Your task to perform on an android device: find snoozed emails in the gmail app Image 0: 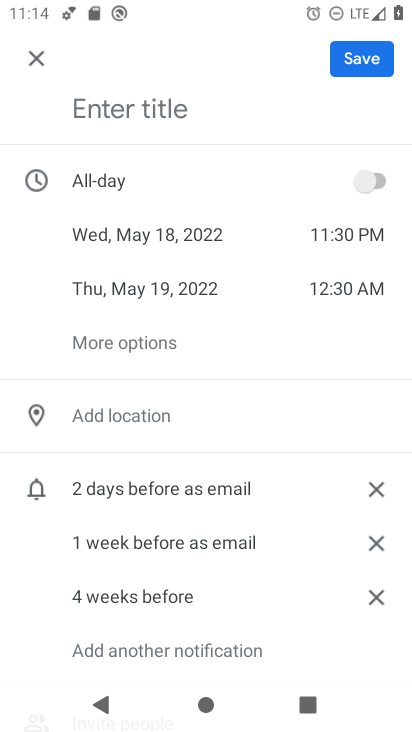
Step 0: press home button
Your task to perform on an android device: find snoozed emails in the gmail app Image 1: 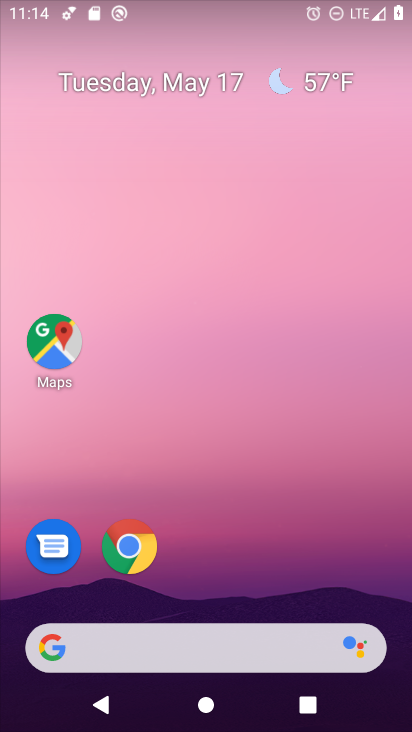
Step 1: drag from (318, 606) to (322, 1)
Your task to perform on an android device: find snoozed emails in the gmail app Image 2: 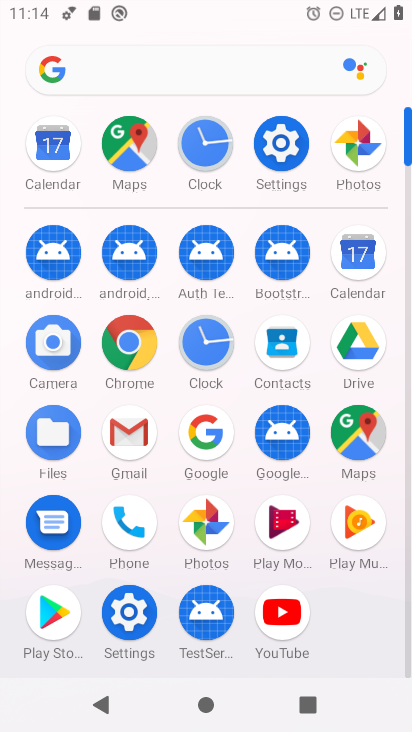
Step 2: click (135, 436)
Your task to perform on an android device: find snoozed emails in the gmail app Image 3: 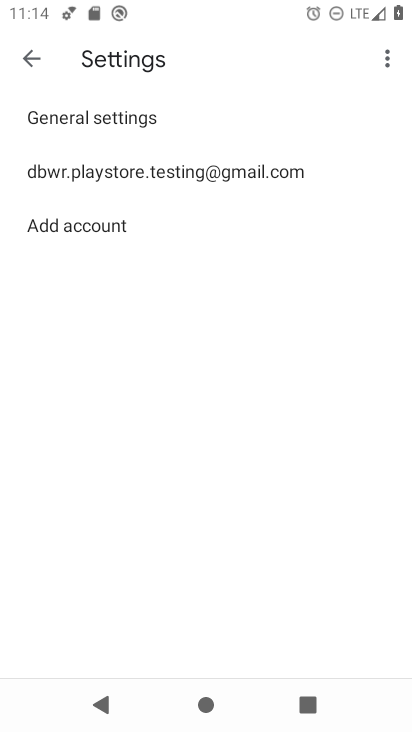
Step 3: click (18, 52)
Your task to perform on an android device: find snoozed emails in the gmail app Image 4: 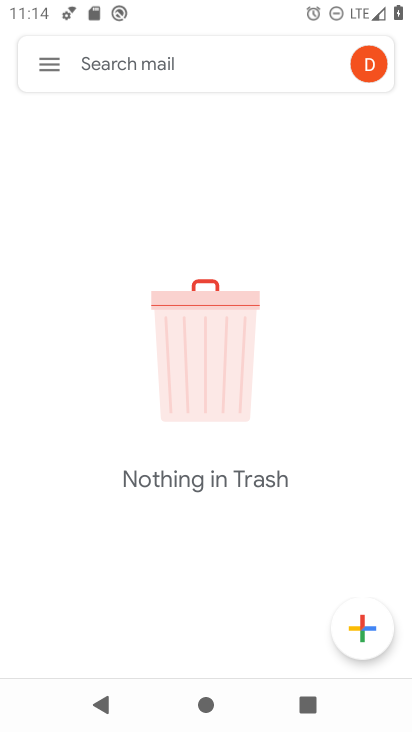
Step 4: click (57, 65)
Your task to perform on an android device: find snoozed emails in the gmail app Image 5: 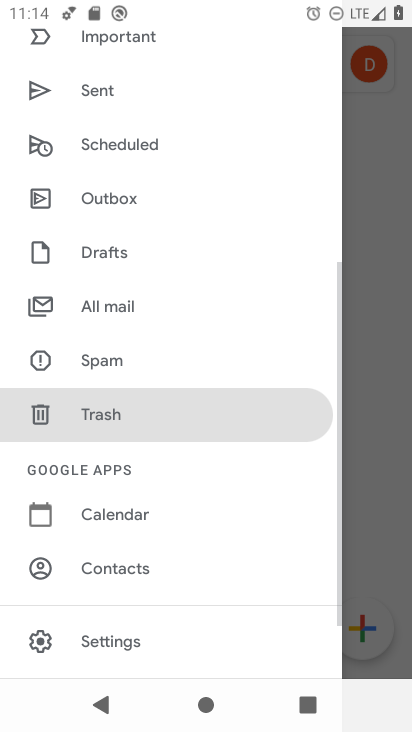
Step 5: drag from (206, 206) to (238, 504)
Your task to perform on an android device: find snoozed emails in the gmail app Image 6: 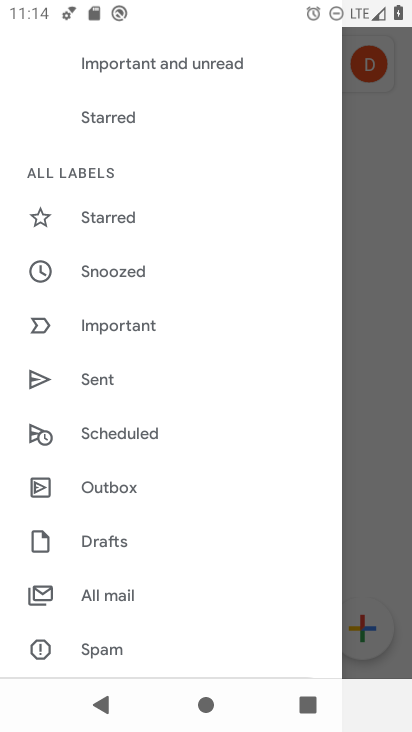
Step 6: click (115, 270)
Your task to perform on an android device: find snoozed emails in the gmail app Image 7: 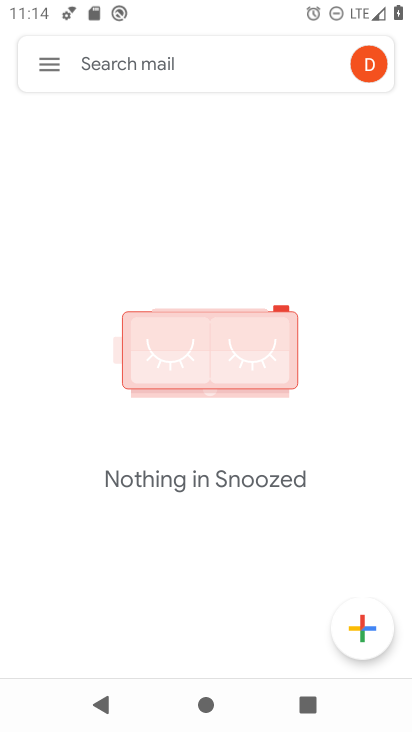
Step 7: task complete